Your task to perform on an android device: install app "Gboard" Image 0: 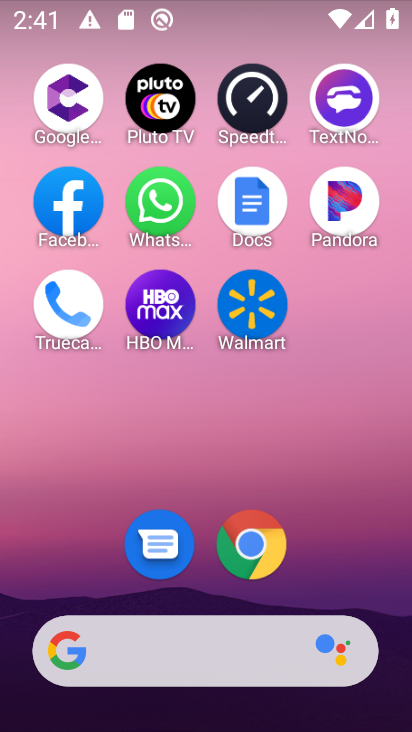
Step 0: drag from (389, 556) to (217, 20)
Your task to perform on an android device: install app "Gboard" Image 1: 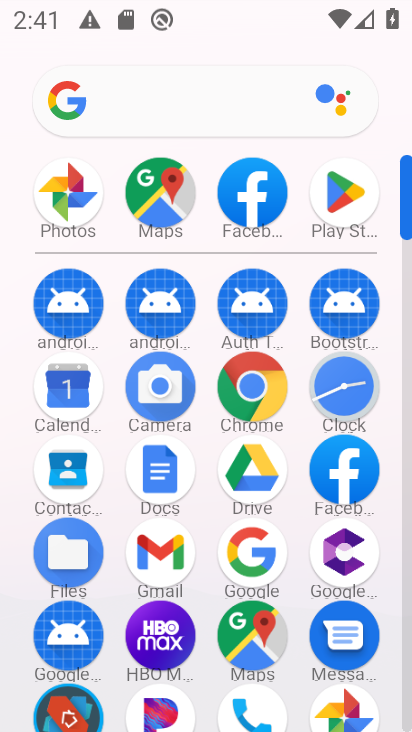
Step 1: click (343, 203)
Your task to perform on an android device: install app "Gboard" Image 2: 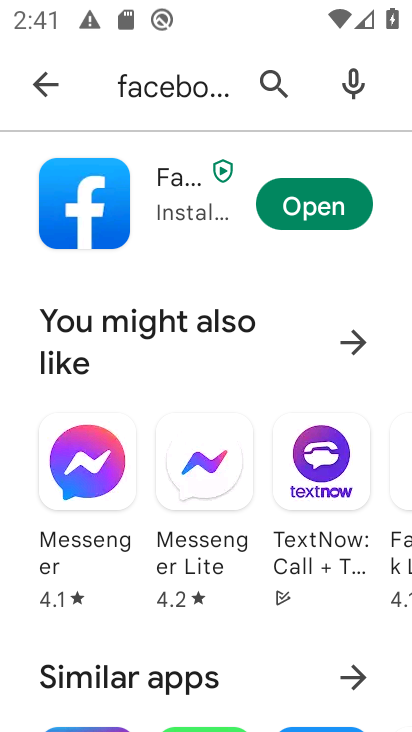
Step 2: press back button
Your task to perform on an android device: install app "Gboard" Image 3: 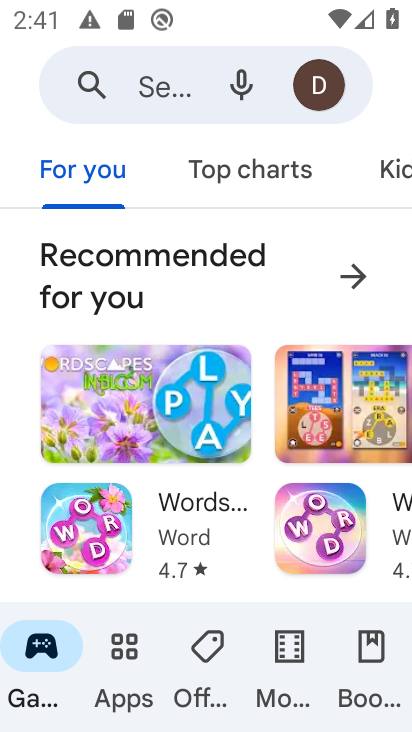
Step 3: click (156, 92)
Your task to perform on an android device: install app "Gboard" Image 4: 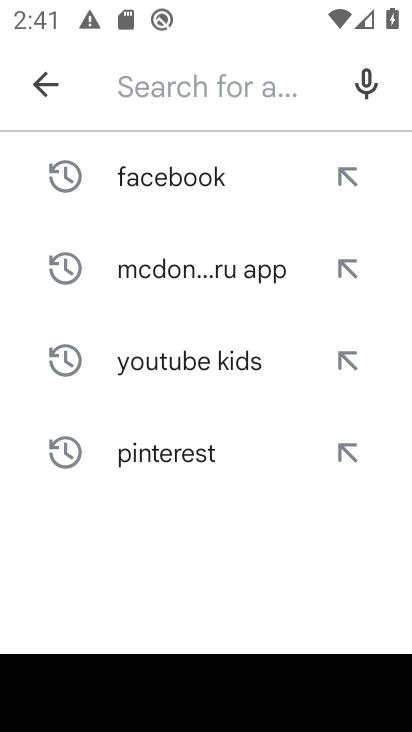
Step 4: type "Gboard"
Your task to perform on an android device: install app "Gboard" Image 5: 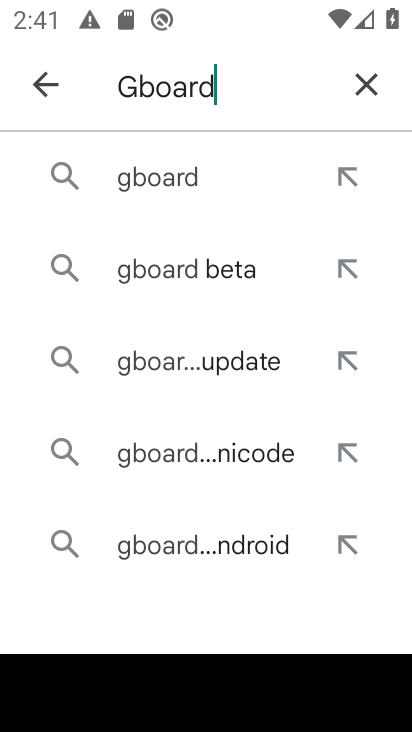
Step 5: click (184, 186)
Your task to perform on an android device: install app "Gboard" Image 6: 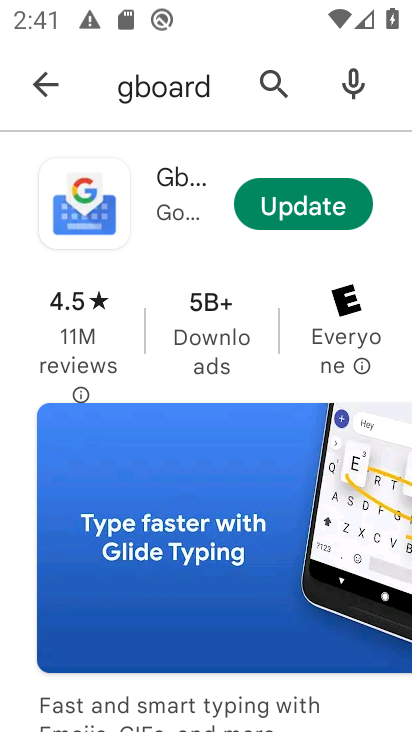
Step 6: click (287, 203)
Your task to perform on an android device: install app "Gboard" Image 7: 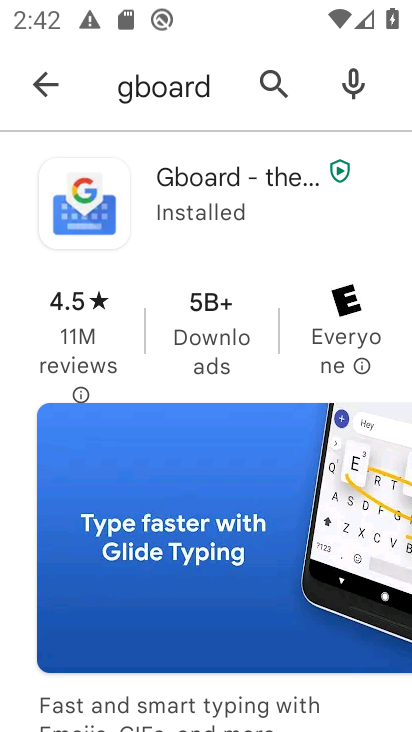
Step 7: task complete